Your task to perform on an android device: turn on showing notifications on the lock screen Image 0: 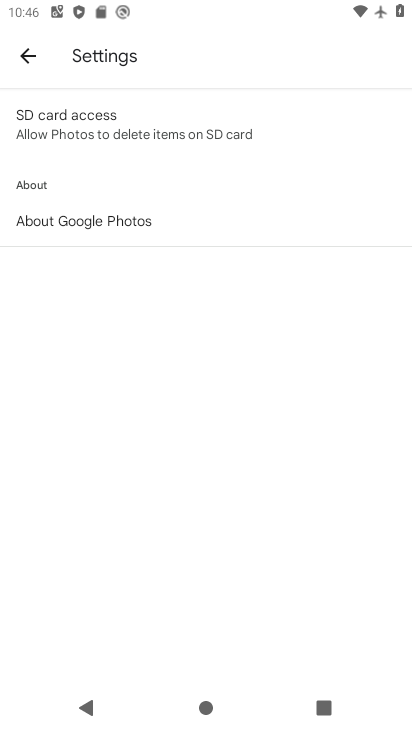
Step 0: press home button
Your task to perform on an android device: turn on showing notifications on the lock screen Image 1: 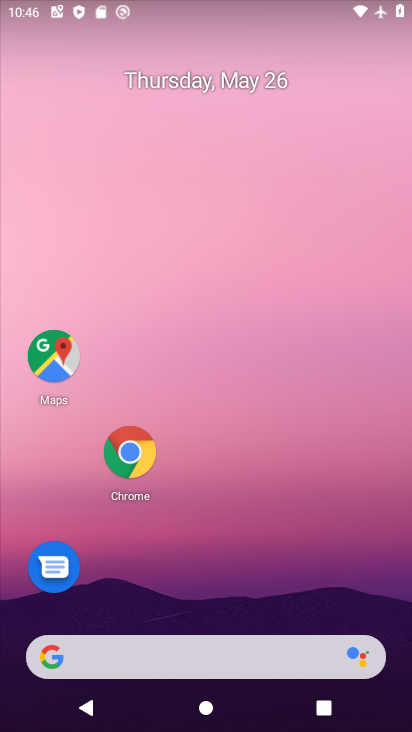
Step 1: drag from (203, 661) to (288, 177)
Your task to perform on an android device: turn on showing notifications on the lock screen Image 2: 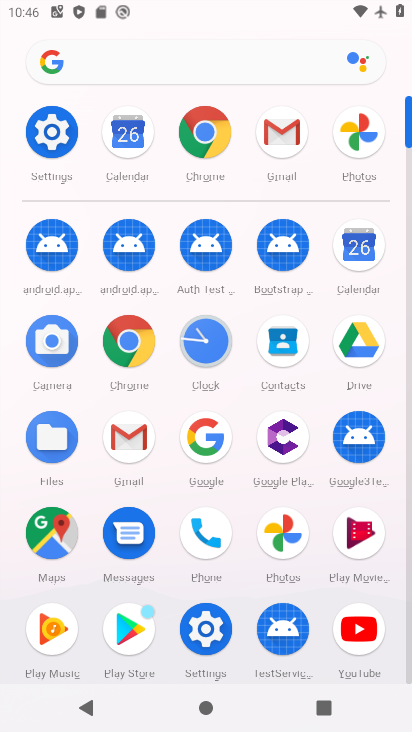
Step 2: click (52, 138)
Your task to perform on an android device: turn on showing notifications on the lock screen Image 3: 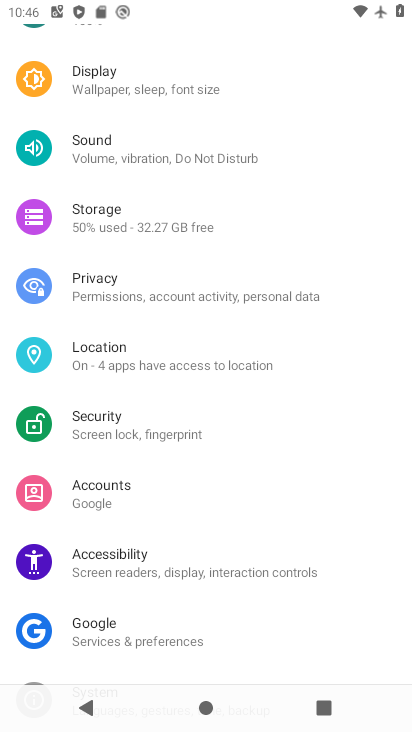
Step 3: drag from (300, 227) to (233, 565)
Your task to perform on an android device: turn on showing notifications on the lock screen Image 4: 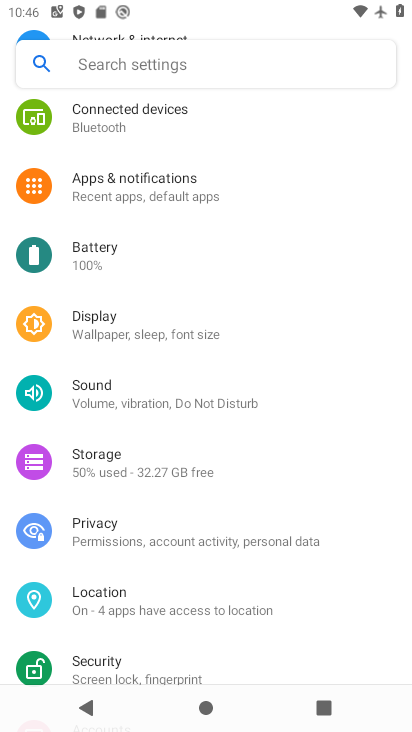
Step 4: click (134, 180)
Your task to perform on an android device: turn on showing notifications on the lock screen Image 5: 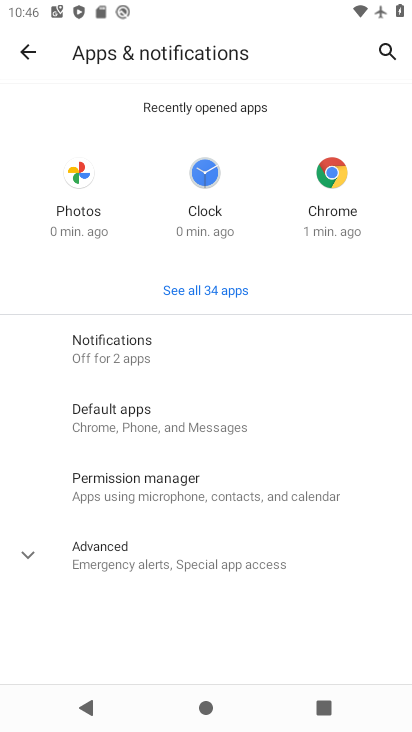
Step 5: click (135, 352)
Your task to perform on an android device: turn on showing notifications on the lock screen Image 6: 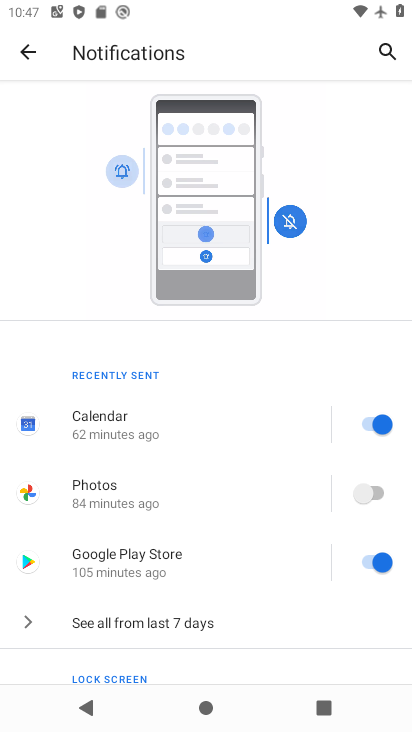
Step 6: drag from (234, 624) to (297, 346)
Your task to perform on an android device: turn on showing notifications on the lock screen Image 7: 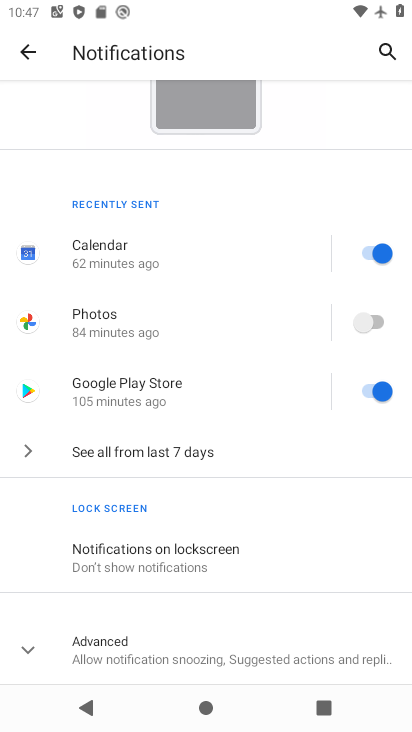
Step 7: click (201, 553)
Your task to perform on an android device: turn on showing notifications on the lock screen Image 8: 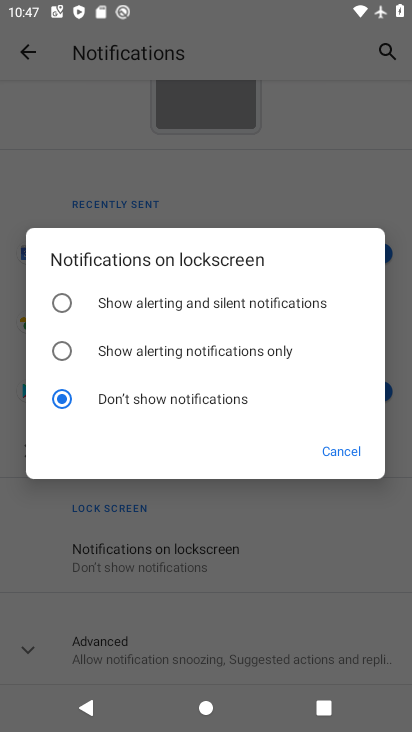
Step 8: click (61, 298)
Your task to perform on an android device: turn on showing notifications on the lock screen Image 9: 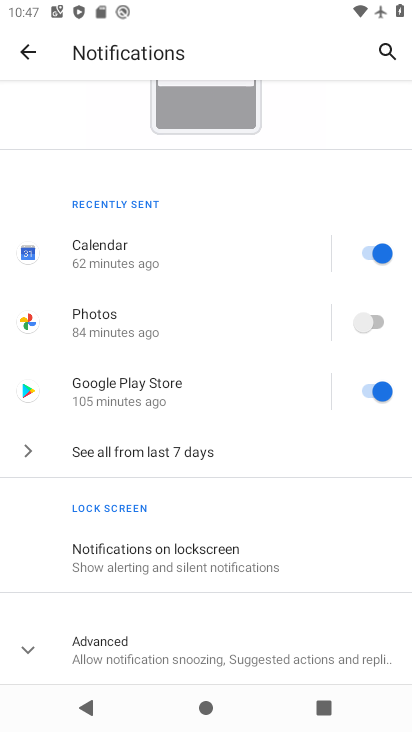
Step 9: task complete